Your task to perform on an android device: change timer sound Image 0: 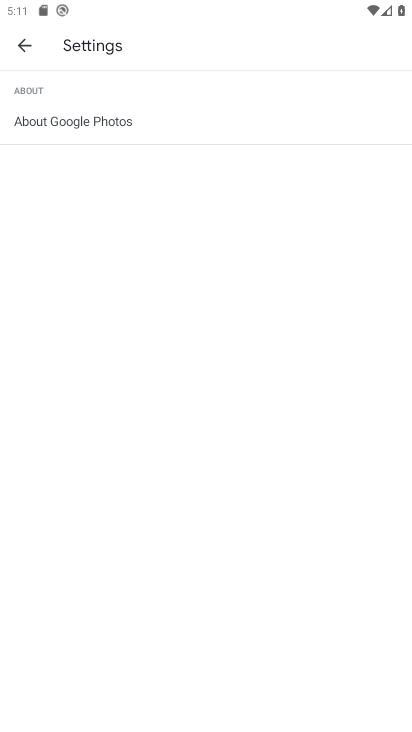
Step 0: press home button
Your task to perform on an android device: change timer sound Image 1: 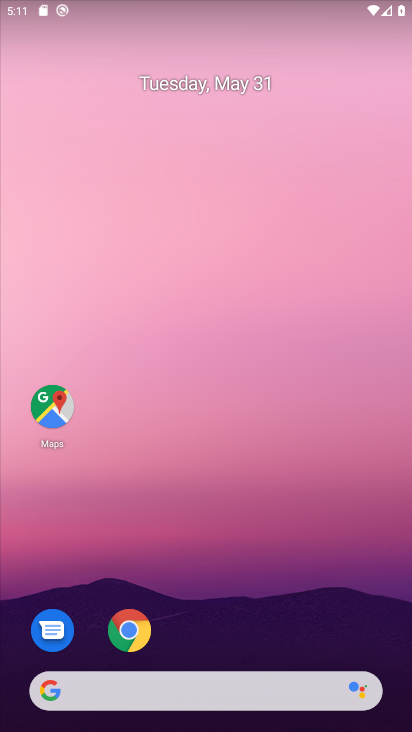
Step 1: drag from (235, 617) to (225, 70)
Your task to perform on an android device: change timer sound Image 2: 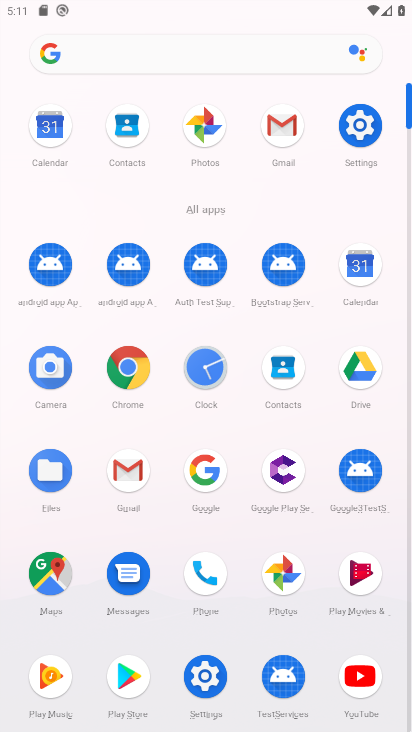
Step 2: click (204, 361)
Your task to perform on an android device: change timer sound Image 3: 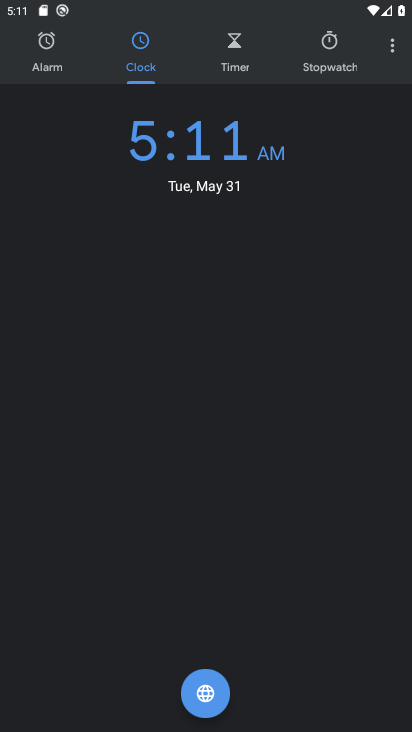
Step 3: click (375, 43)
Your task to perform on an android device: change timer sound Image 4: 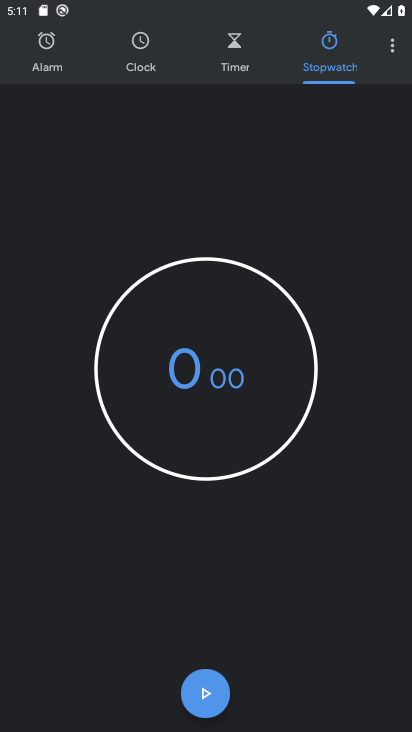
Step 4: click (383, 48)
Your task to perform on an android device: change timer sound Image 5: 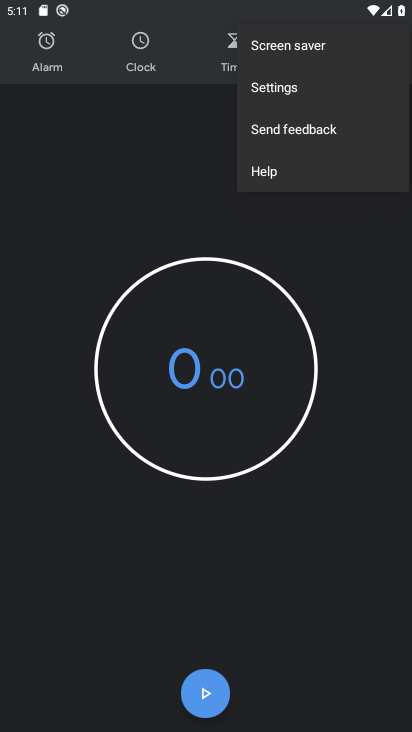
Step 5: click (284, 91)
Your task to perform on an android device: change timer sound Image 6: 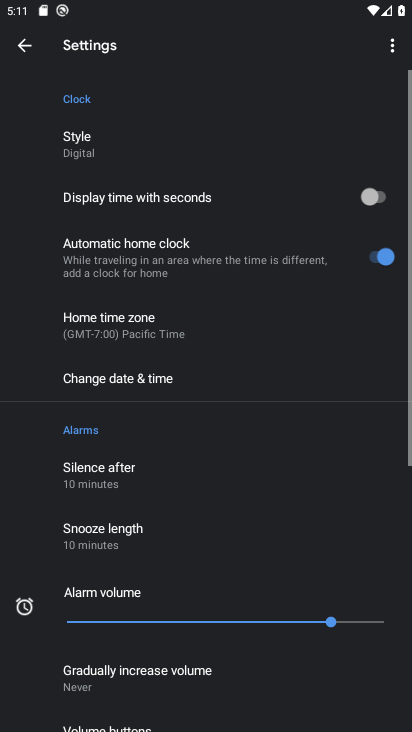
Step 6: click (110, 165)
Your task to perform on an android device: change timer sound Image 7: 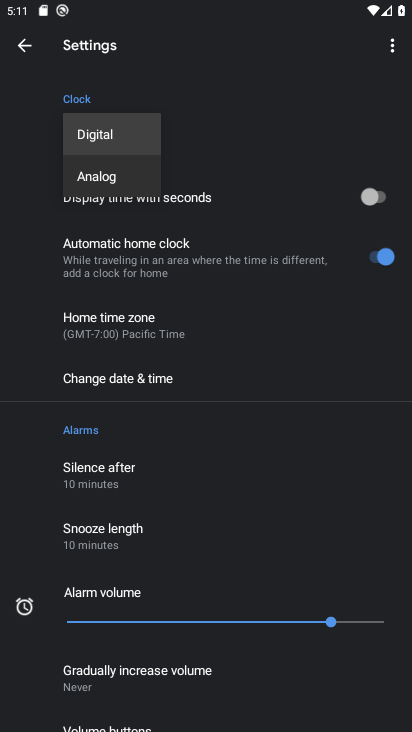
Step 7: click (265, 135)
Your task to perform on an android device: change timer sound Image 8: 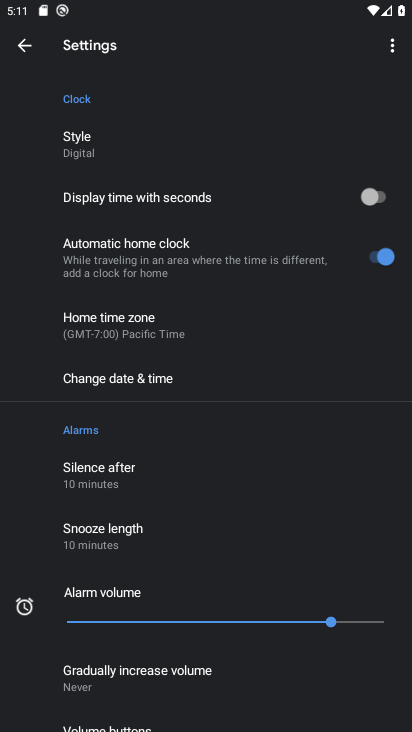
Step 8: drag from (233, 496) to (216, 117)
Your task to perform on an android device: change timer sound Image 9: 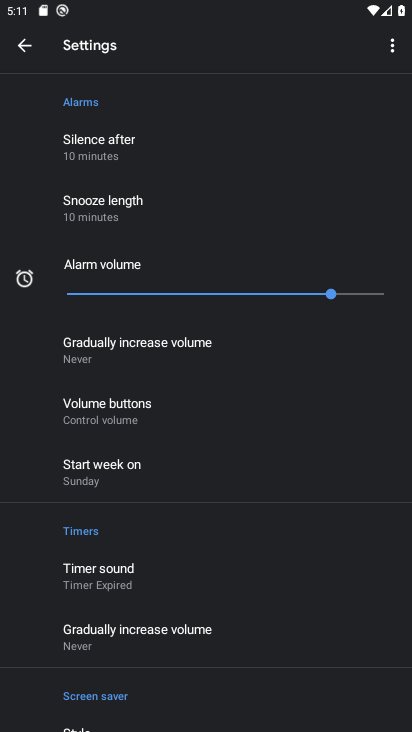
Step 9: click (110, 574)
Your task to perform on an android device: change timer sound Image 10: 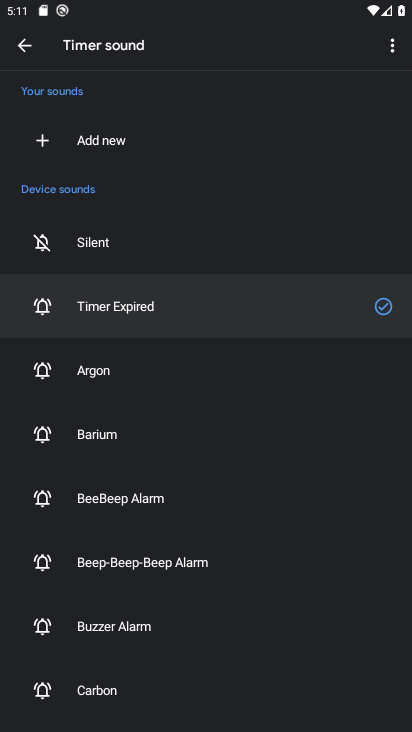
Step 10: click (105, 386)
Your task to perform on an android device: change timer sound Image 11: 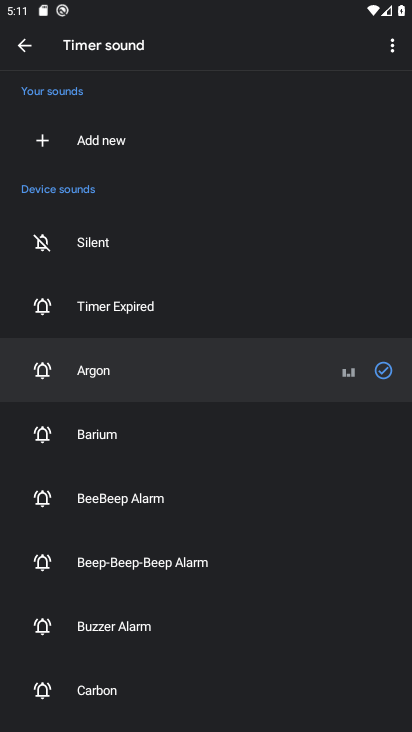
Step 11: task complete